Your task to perform on an android device: create a new album in the google photos Image 0: 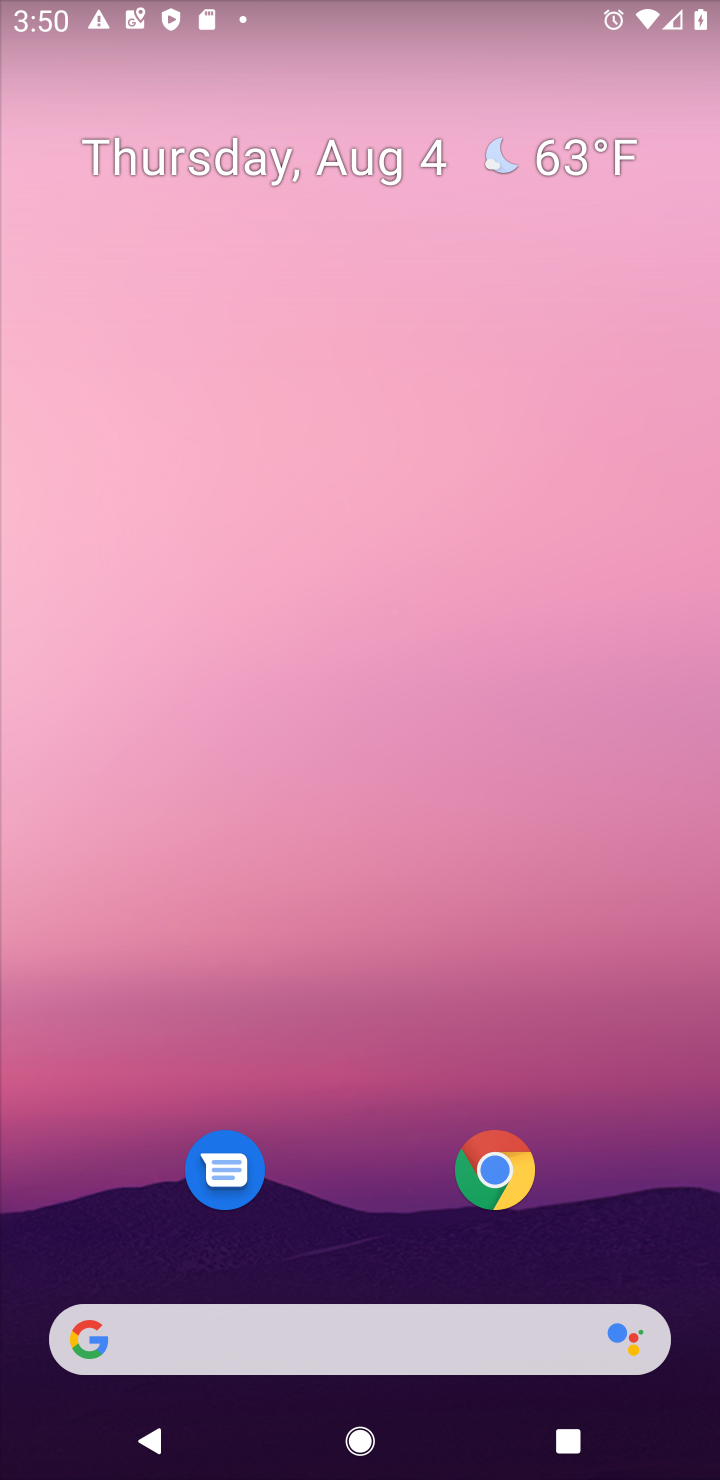
Step 0: drag from (670, 1243) to (583, 413)
Your task to perform on an android device: create a new album in the google photos Image 1: 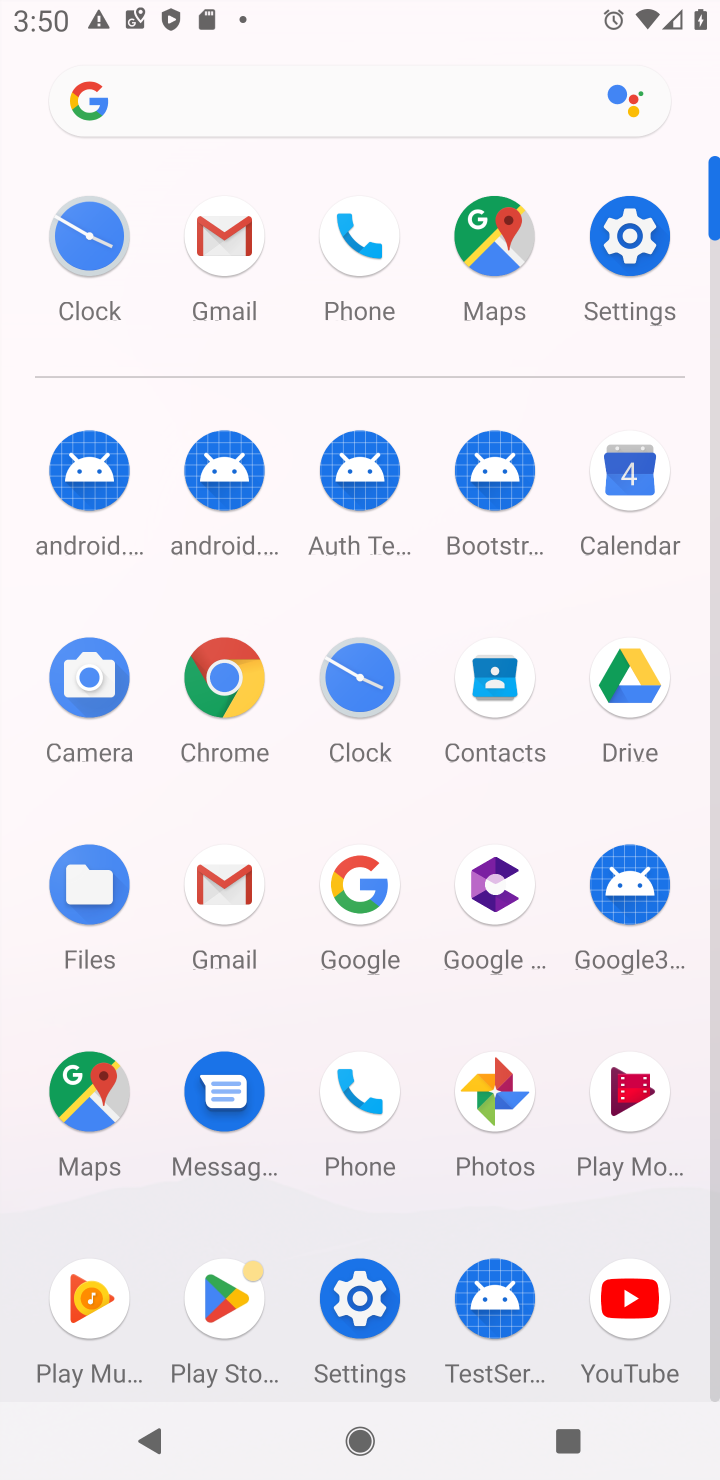
Step 1: click (493, 1096)
Your task to perform on an android device: create a new album in the google photos Image 2: 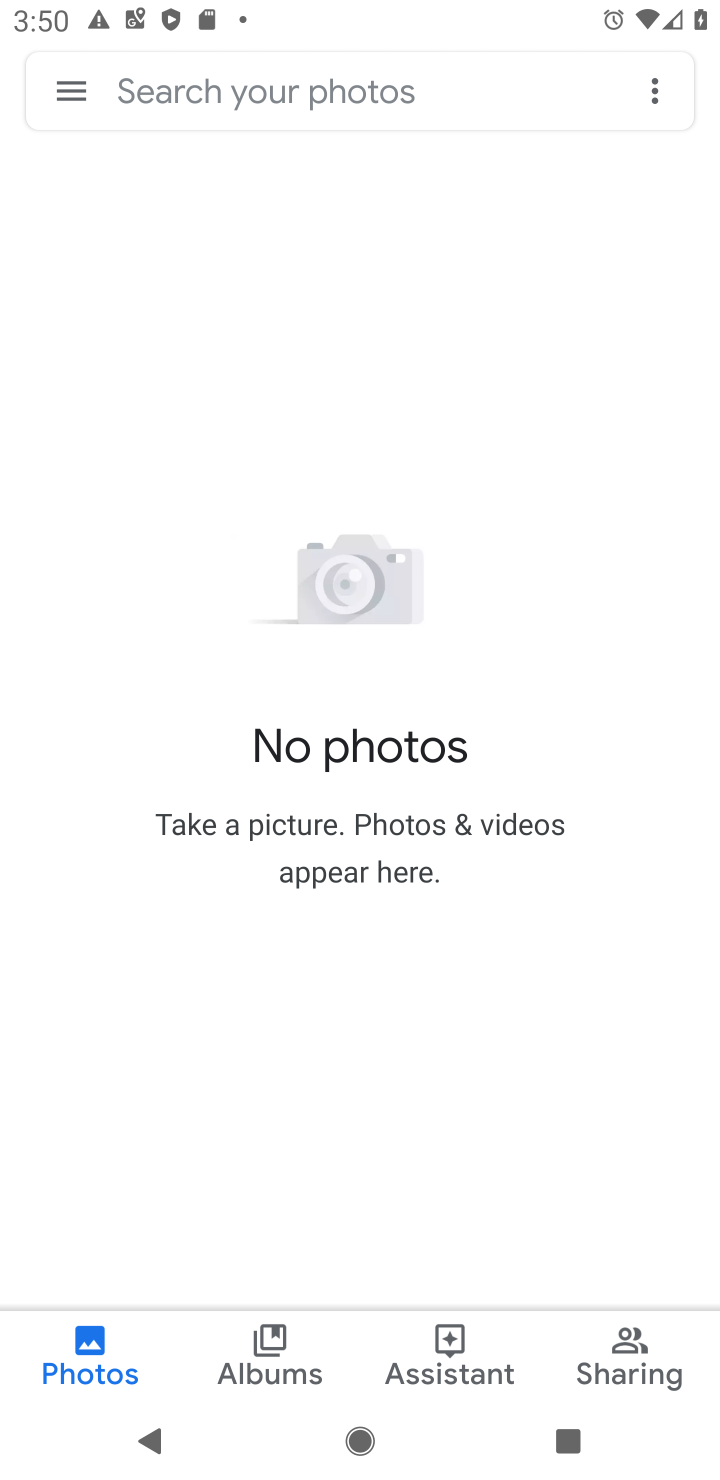
Step 2: click (277, 1346)
Your task to perform on an android device: create a new album in the google photos Image 3: 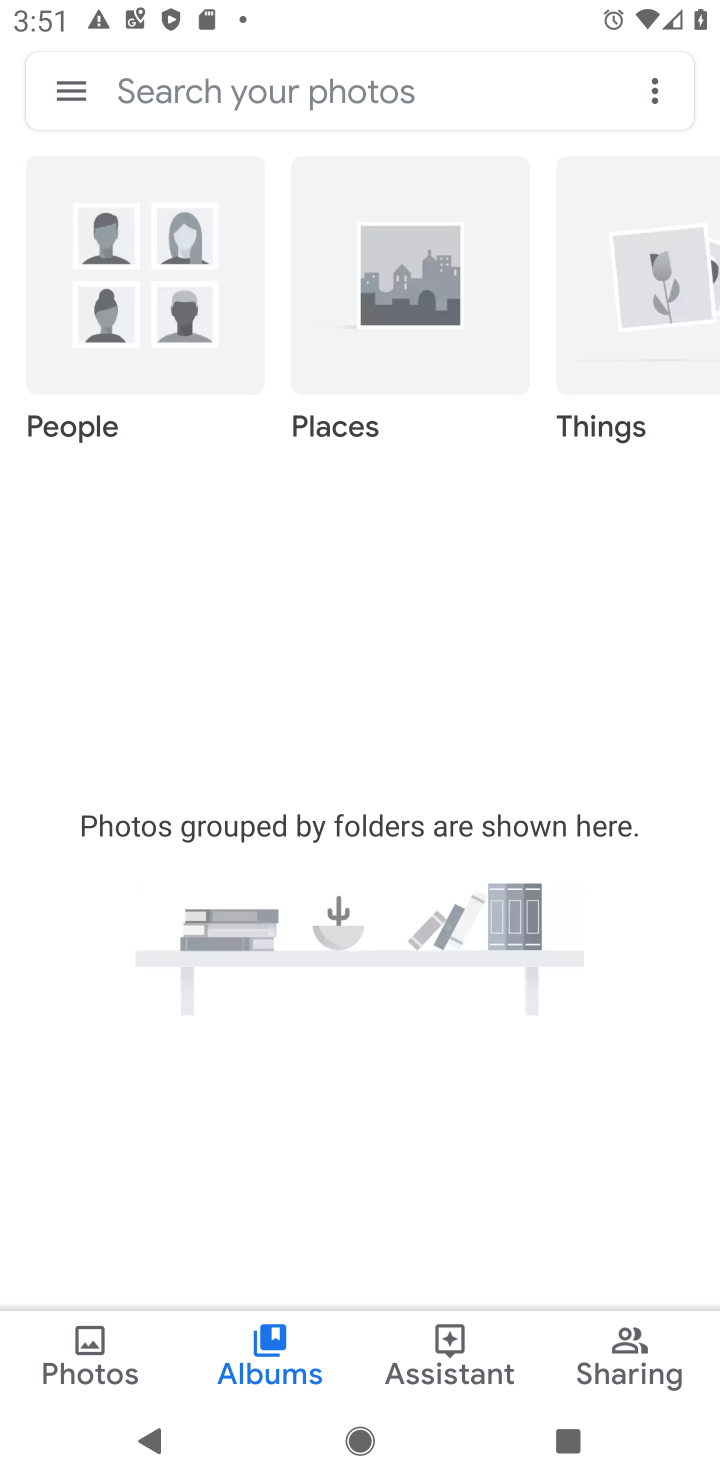
Step 3: task complete